Your task to perform on an android device: turn off priority inbox in the gmail app Image 0: 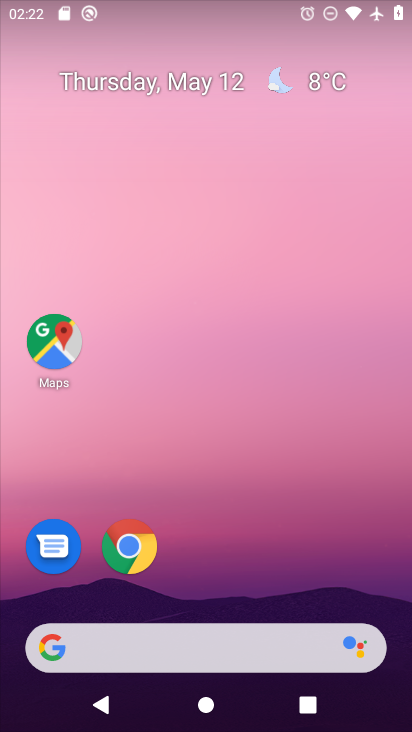
Step 0: drag from (210, 639) to (250, 216)
Your task to perform on an android device: turn off priority inbox in the gmail app Image 1: 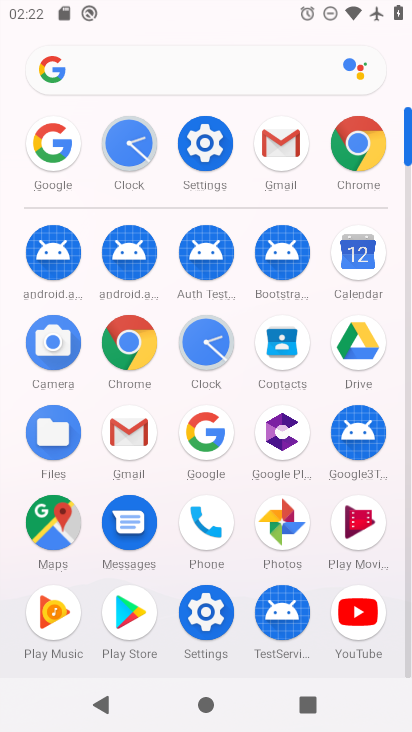
Step 1: click (274, 155)
Your task to perform on an android device: turn off priority inbox in the gmail app Image 2: 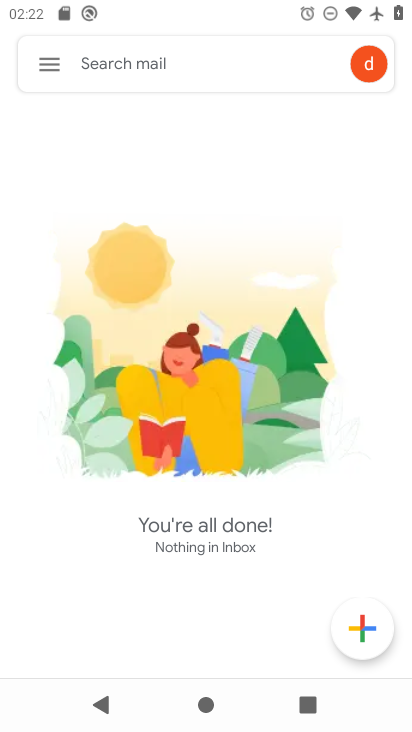
Step 2: click (44, 63)
Your task to perform on an android device: turn off priority inbox in the gmail app Image 3: 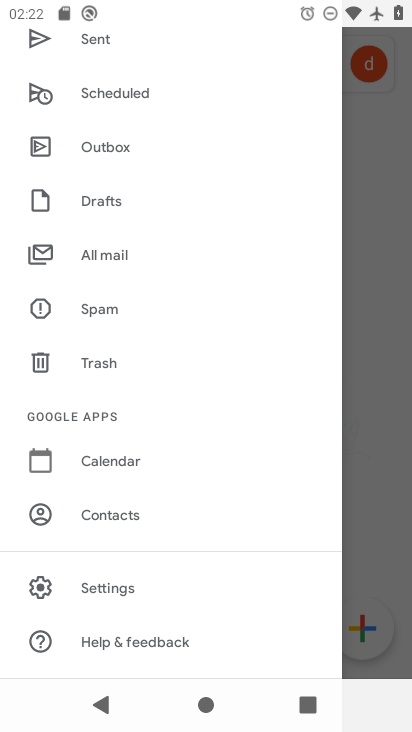
Step 3: click (113, 587)
Your task to perform on an android device: turn off priority inbox in the gmail app Image 4: 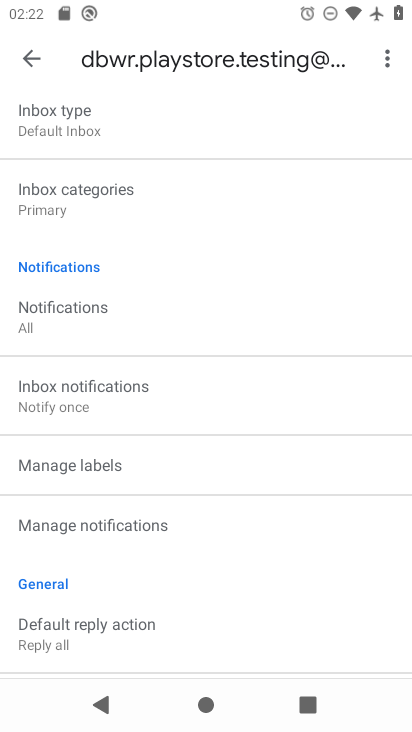
Step 4: drag from (175, 152) to (163, 498)
Your task to perform on an android device: turn off priority inbox in the gmail app Image 5: 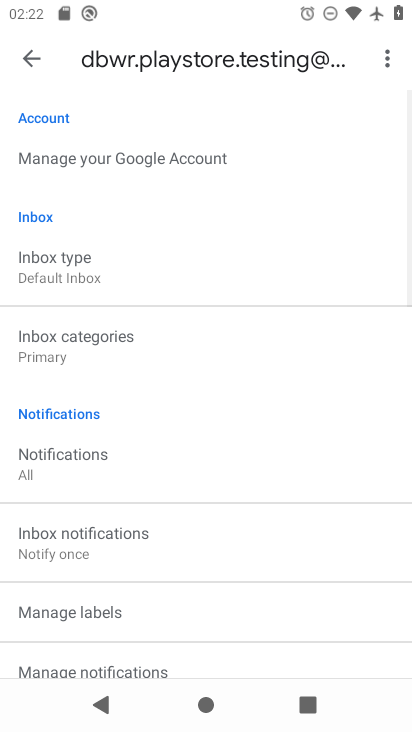
Step 5: click (79, 278)
Your task to perform on an android device: turn off priority inbox in the gmail app Image 6: 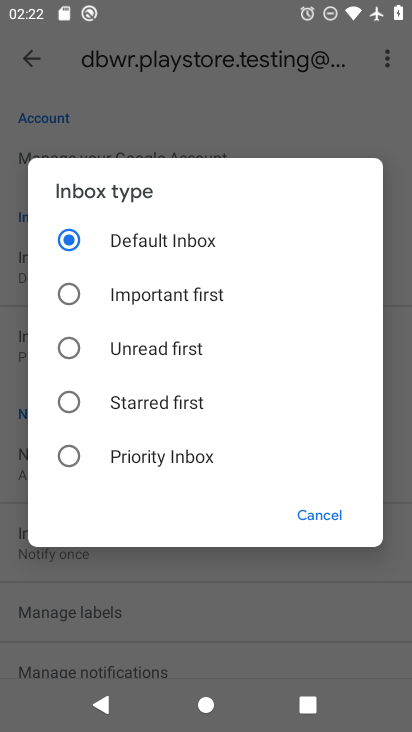
Step 6: task complete